Your task to perform on an android device: turn off location history Image 0: 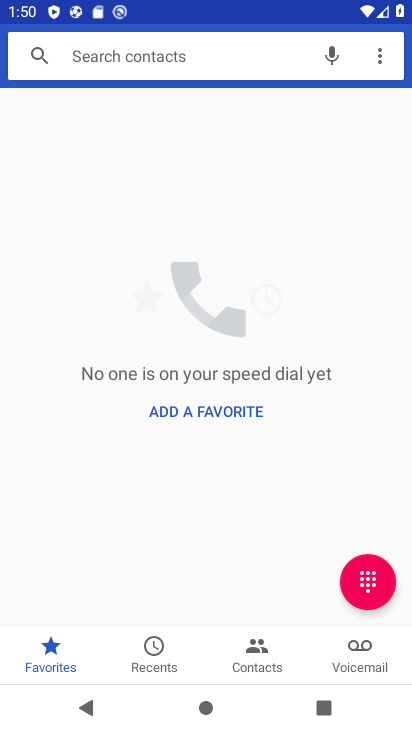
Step 0: press home button
Your task to perform on an android device: turn off location history Image 1: 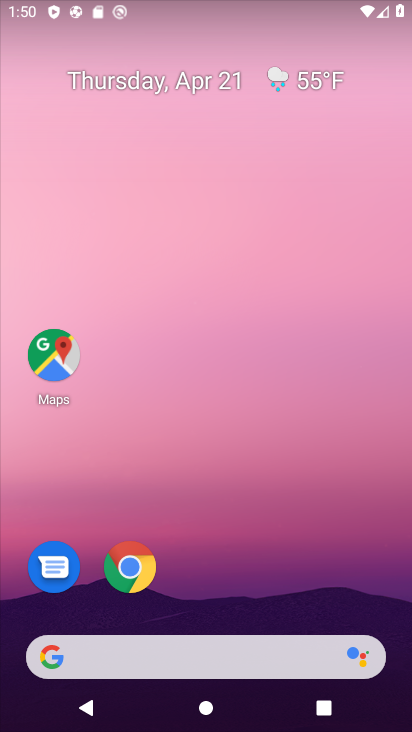
Step 1: drag from (136, 665) to (275, 188)
Your task to perform on an android device: turn off location history Image 2: 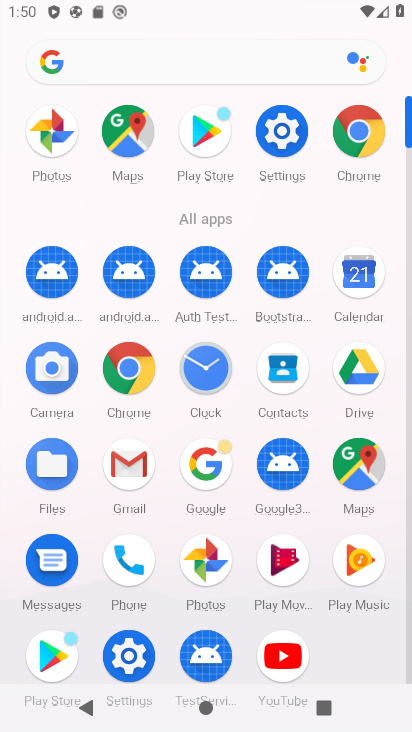
Step 2: click (293, 145)
Your task to perform on an android device: turn off location history Image 3: 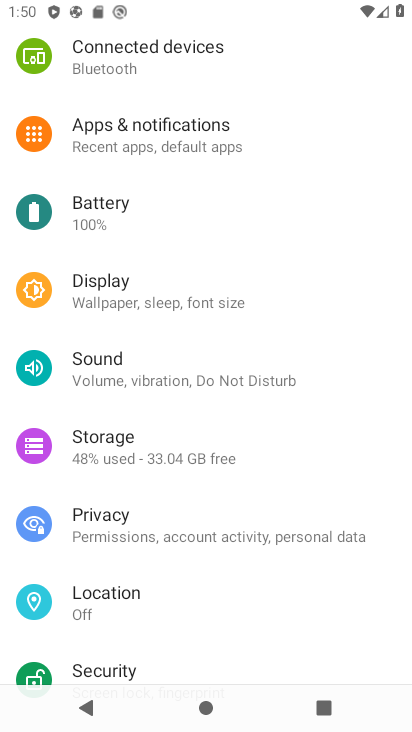
Step 3: click (94, 606)
Your task to perform on an android device: turn off location history Image 4: 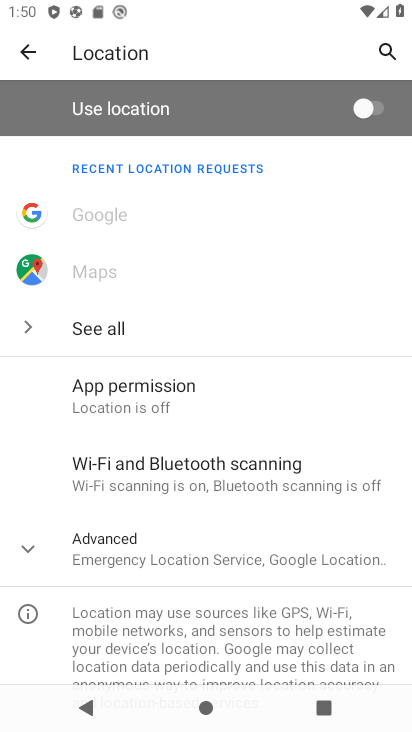
Step 4: click (143, 553)
Your task to perform on an android device: turn off location history Image 5: 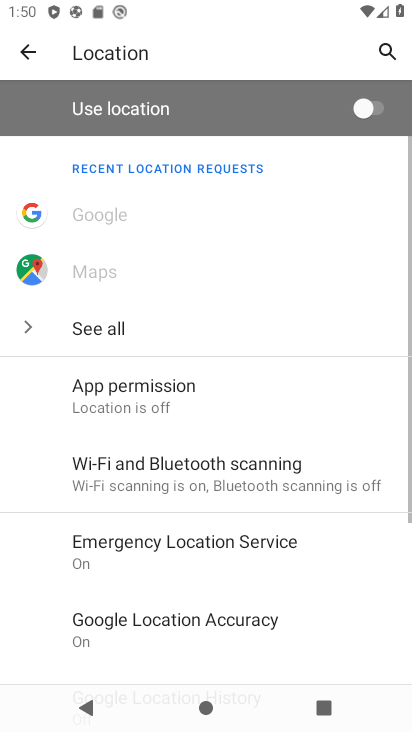
Step 5: drag from (162, 601) to (284, 289)
Your task to perform on an android device: turn off location history Image 6: 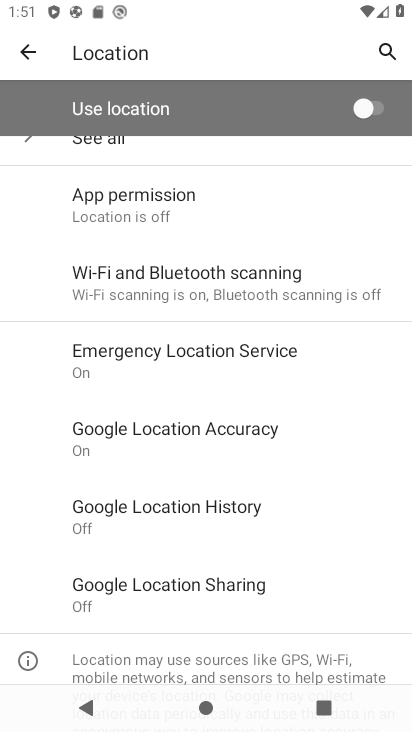
Step 6: click (183, 552)
Your task to perform on an android device: turn off location history Image 7: 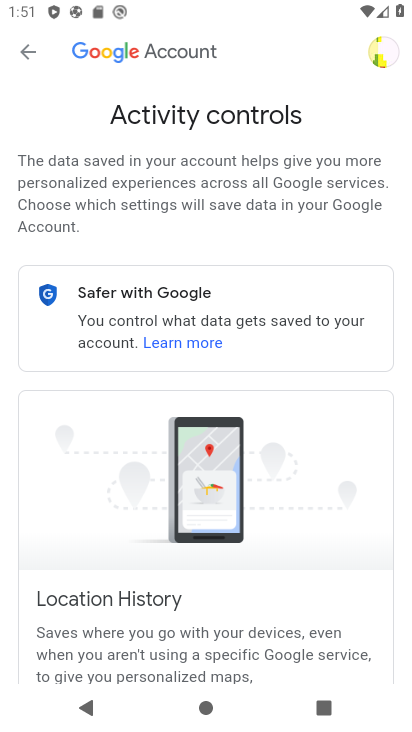
Step 7: drag from (185, 603) to (319, 159)
Your task to perform on an android device: turn off location history Image 8: 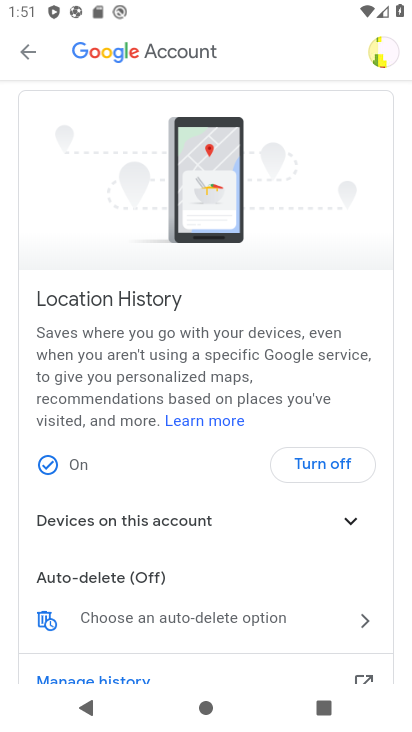
Step 8: click (324, 461)
Your task to perform on an android device: turn off location history Image 9: 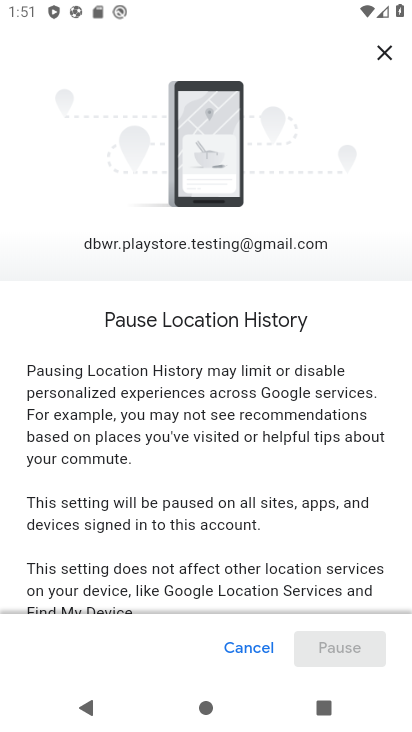
Step 9: drag from (205, 549) to (307, 201)
Your task to perform on an android device: turn off location history Image 10: 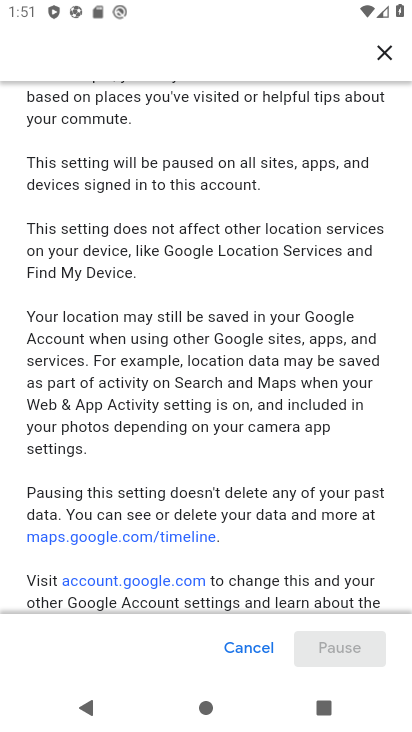
Step 10: drag from (147, 556) to (318, 116)
Your task to perform on an android device: turn off location history Image 11: 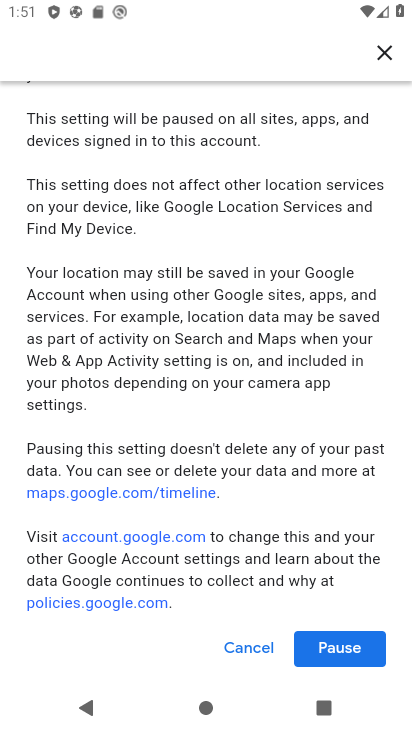
Step 11: click (329, 644)
Your task to perform on an android device: turn off location history Image 12: 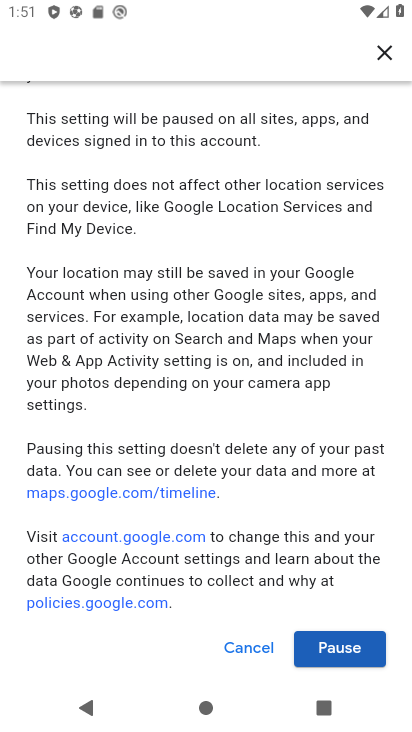
Step 12: click (343, 646)
Your task to perform on an android device: turn off location history Image 13: 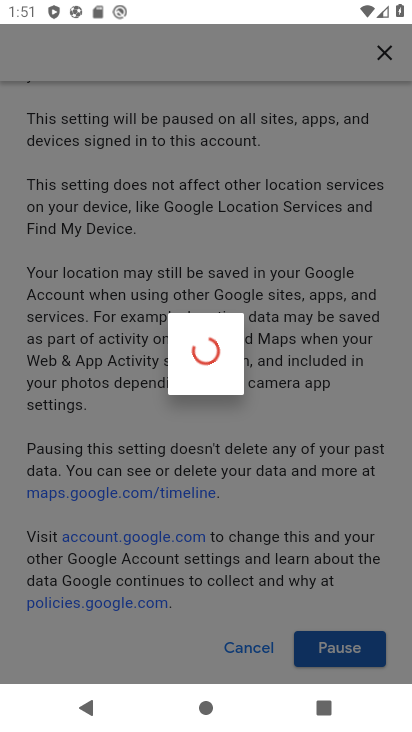
Step 13: click (353, 648)
Your task to perform on an android device: turn off location history Image 14: 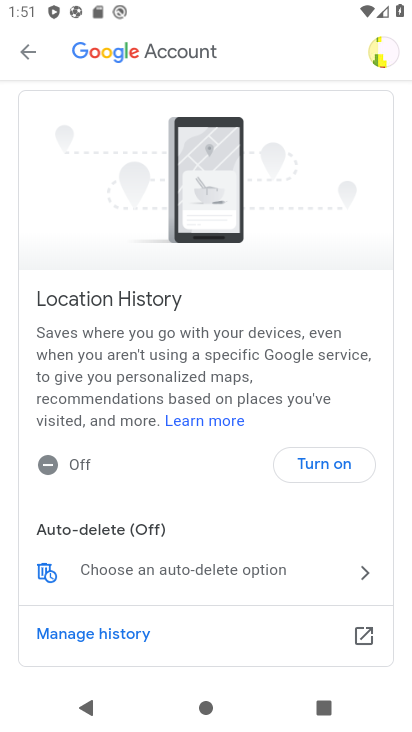
Step 14: task complete